Your task to perform on an android device: Go to Google maps Image 0: 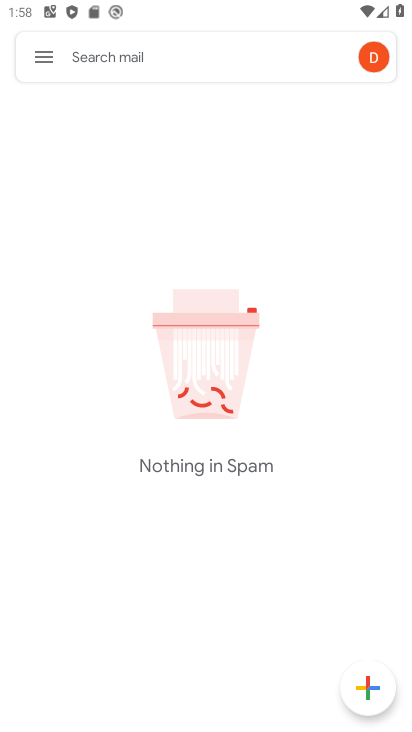
Step 0: press home button
Your task to perform on an android device: Go to Google maps Image 1: 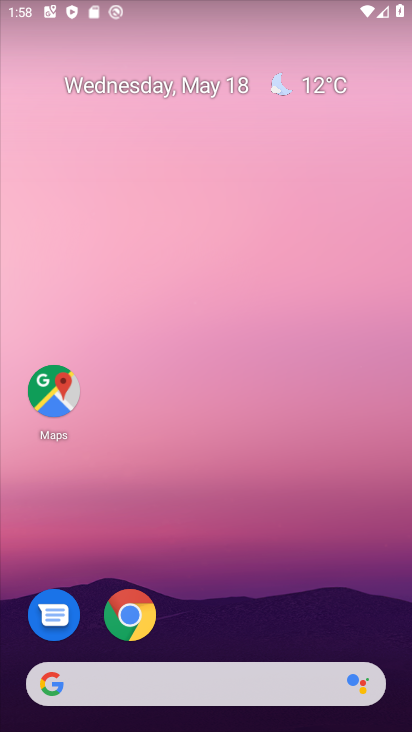
Step 1: drag from (362, 646) to (229, 58)
Your task to perform on an android device: Go to Google maps Image 2: 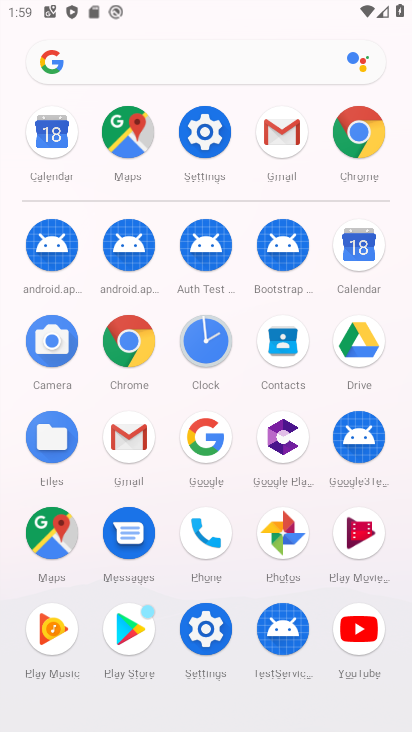
Step 2: click (51, 526)
Your task to perform on an android device: Go to Google maps Image 3: 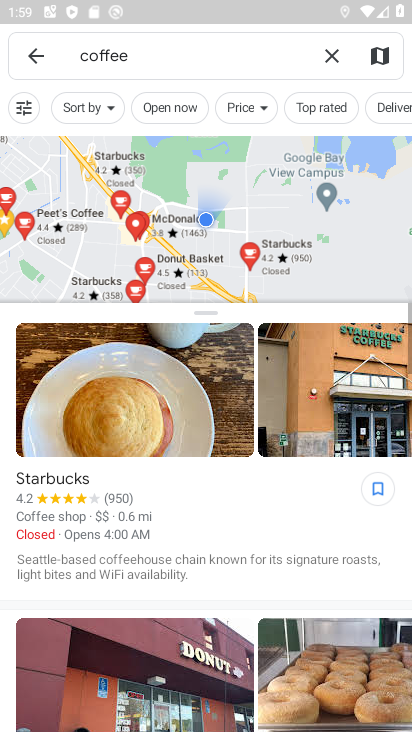
Step 3: click (329, 60)
Your task to perform on an android device: Go to Google maps Image 4: 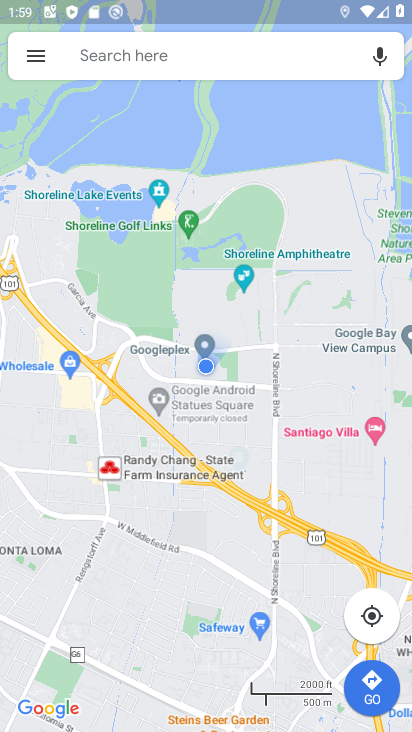
Step 4: task complete